Your task to perform on an android device: Go to calendar. Show me events next week Image 0: 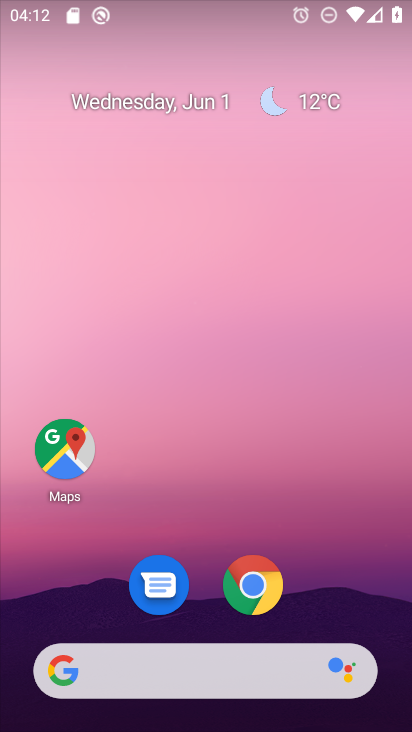
Step 0: drag from (203, 498) to (189, 34)
Your task to perform on an android device: Go to calendar. Show me events next week Image 1: 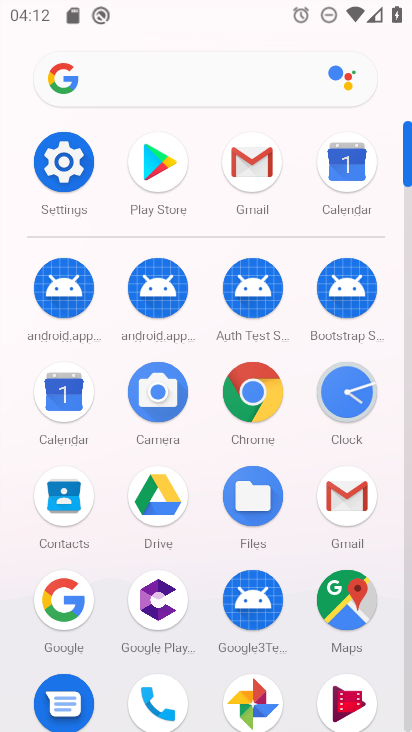
Step 1: click (69, 388)
Your task to perform on an android device: Go to calendar. Show me events next week Image 2: 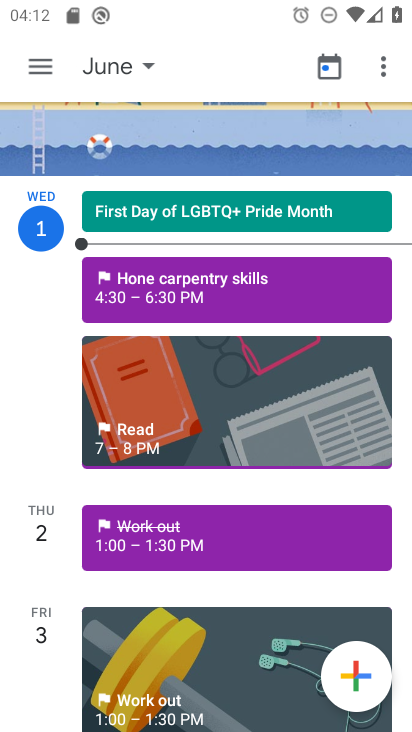
Step 2: click (43, 59)
Your task to perform on an android device: Go to calendar. Show me events next week Image 3: 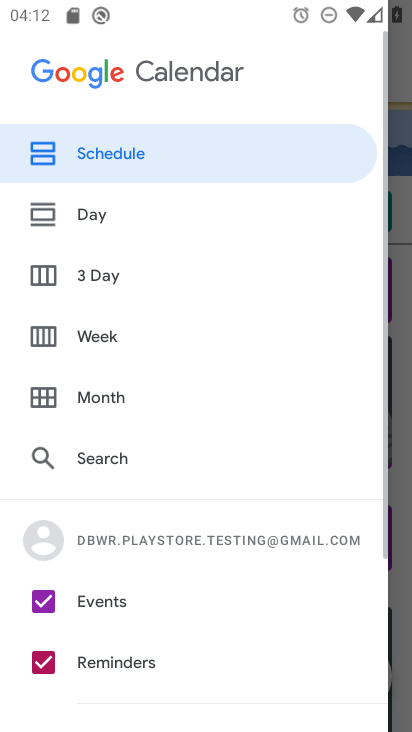
Step 3: click (57, 333)
Your task to perform on an android device: Go to calendar. Show me events next week Image 4: 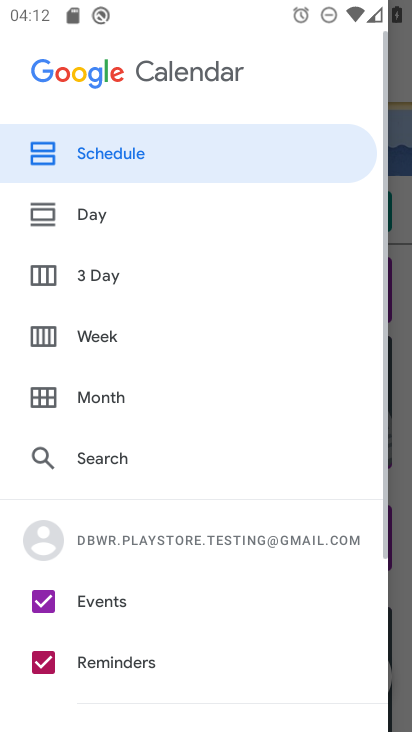
Step 4: click (57, 330)
Your task to perform on an android device: Go to calendar. Show me events next week Image 5: 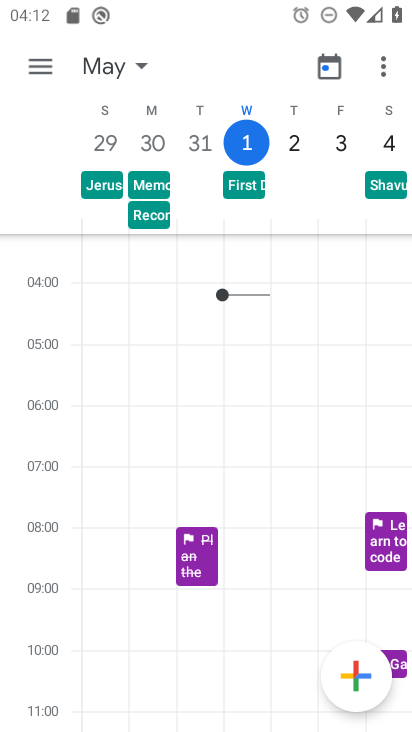
Step 5: task complete